Your task to perform on an android device: turn off data saver in the chrome app Image 0: 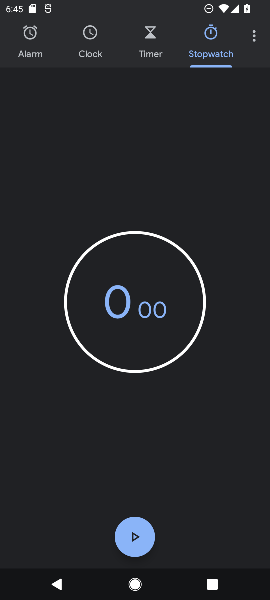
Step 0: press home button
Your task to perform on an android device: turn off data saver in the chrome app Image 1: 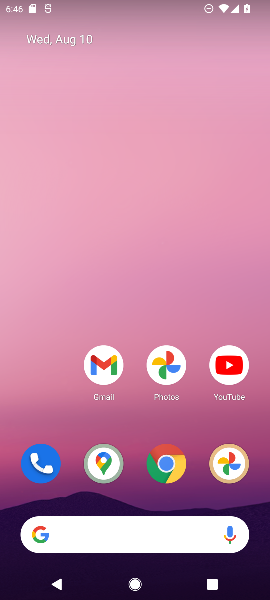
Step 1: click (167, 463)
Your task to perform on an android device: turn off data saver in the chrome app Image 2: 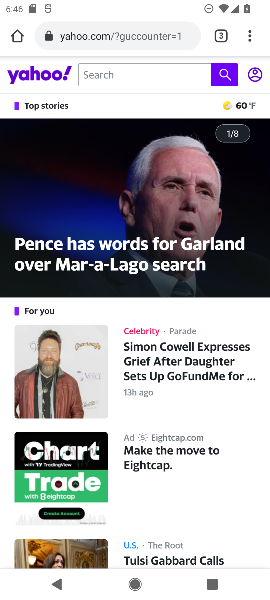
Step 2: click (242, 37)
Your task to perform on an android device: turn off data saver in the chrome app Image 3: 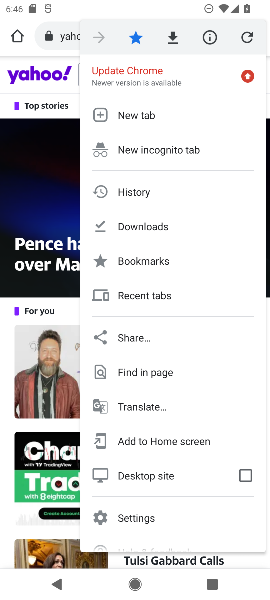
Step 3: click (141, 518)
Your task to perform on an android device: turn off data saver in the chrome app Image 4: 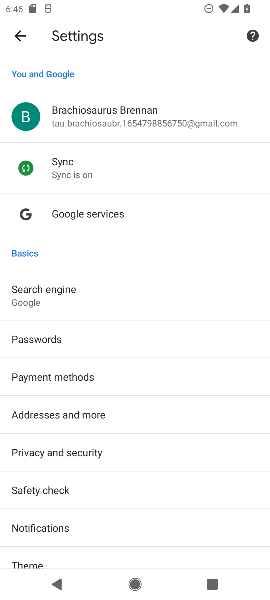
Step 4: drag from (111, 502) to (63, 253)
Your task to perform on an android device: turn off data saver in the chrome app Image 5: 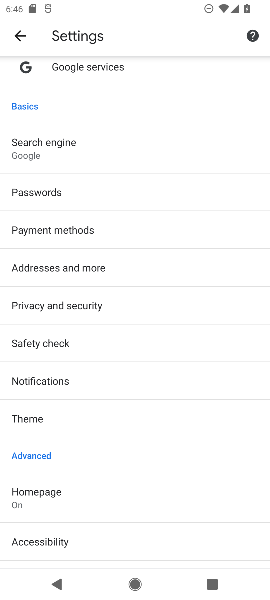
Step 5: drag from (112, 448) to (67, 109)
Your task to perform on an android device: turn off data saver in the chrome app Image 6: 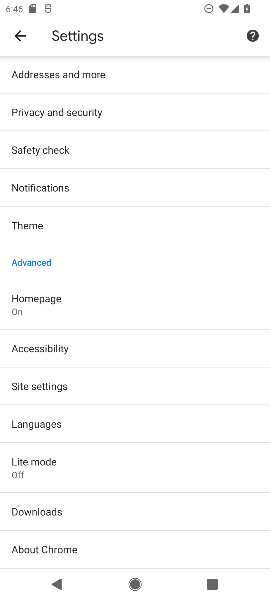
Step 6: click (41, 457)
Your task to perform on an android device: turn off data saver in the chrome app Image 7: 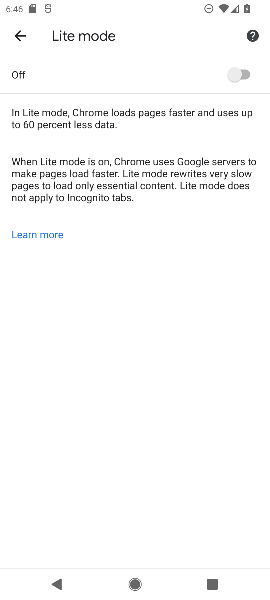
Step 7: task complete